Your task to perform on an android device: Go to privacy settings Image 0: 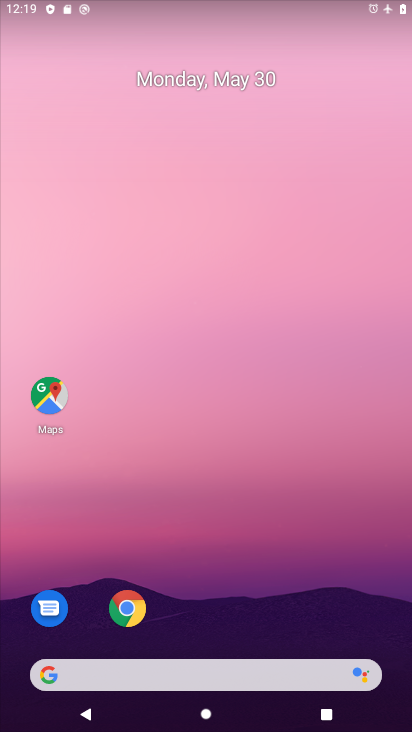
Step 0: drag from (210, 643) to (192, 49)
Your task to perform on an android device: Go to privacy settings Image 1: 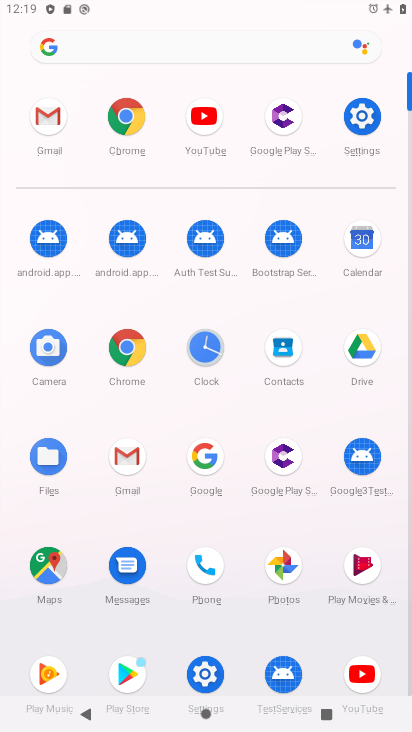
Step 1: click (207, 663)
Your task to perform on an android device: Go to privacy settings Image 2: 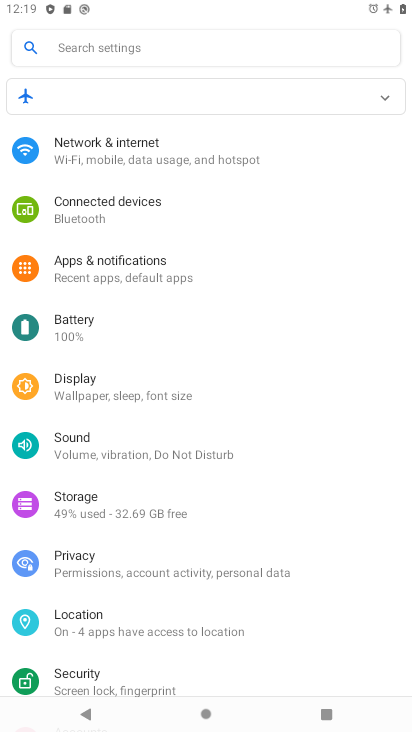
Step 2: click (80, 563)
Your task to perform on an android device: Go to privacy settings Image 3: 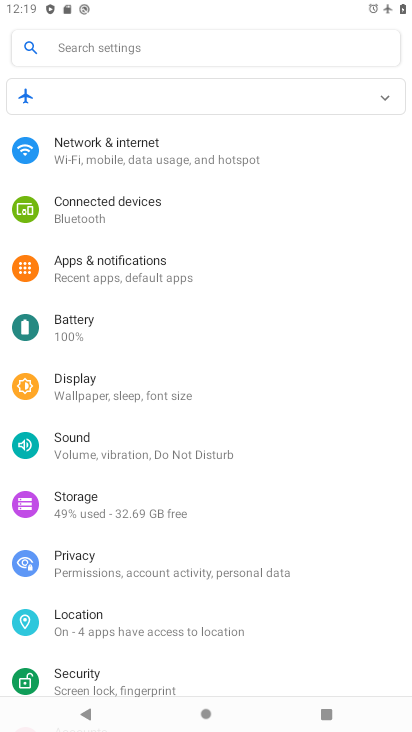
Step 3: task complete